Your task to perform on an android device: Turn on the flashlight Image 0: 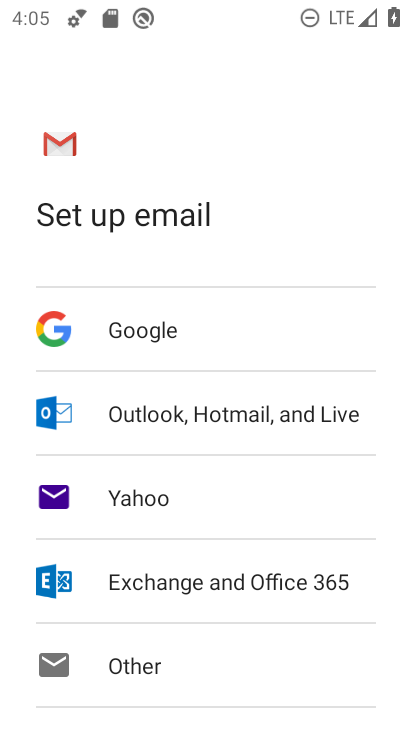
Step 0: press home button
Your task to perform on an android device: Turn on the flashlight Image 1: 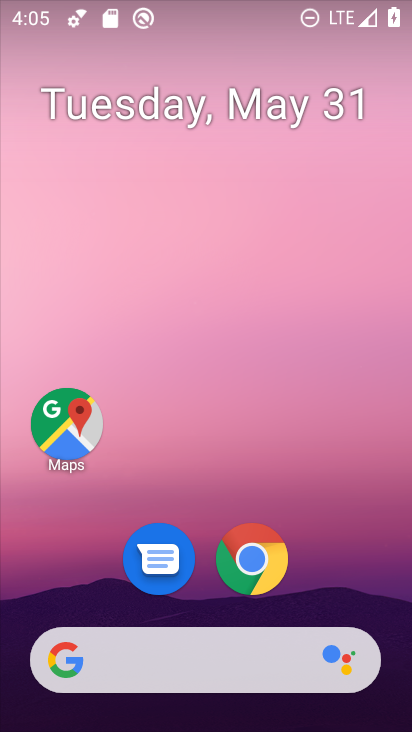
Step 1: drag from (210, 720) to (241, 154)
Your task to perform on an android device: Turn on the flashlight Image 2: 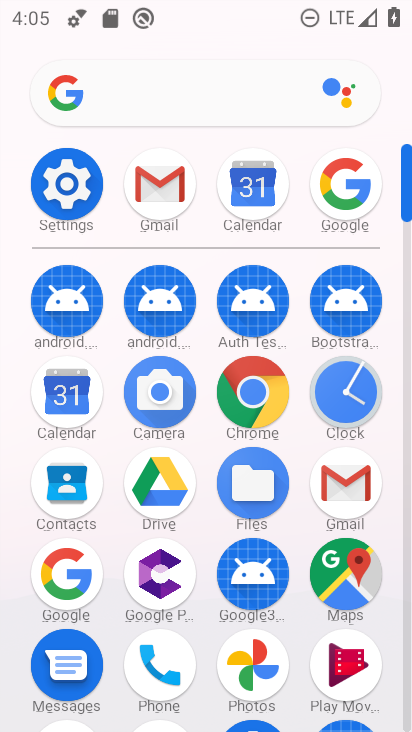
Step 2: click (71, 181)
Your task to perform on an android device: Turn on the flashlight Image 3: 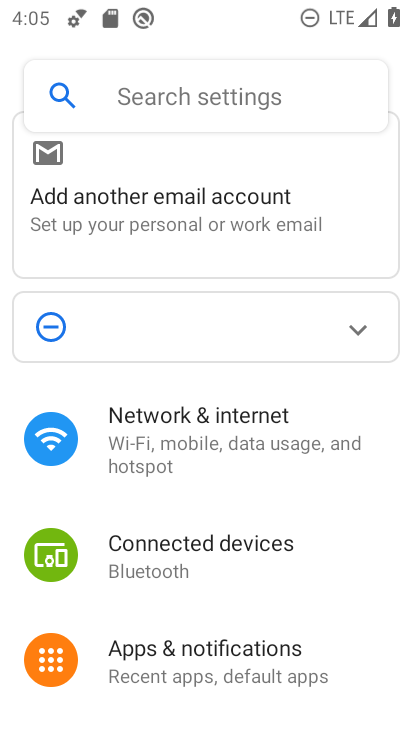
Step 3: drag from (213, 688) to (220, 321)
Your task to perform on an android device: Turn on the flashlight Image 4: 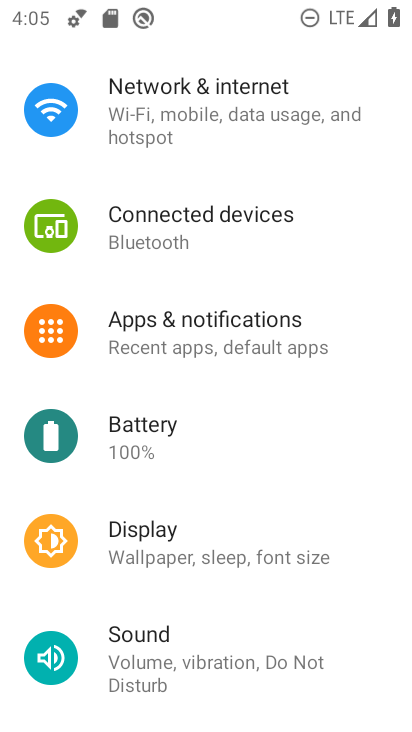
Step 4: drag from (211, 689) to (216, 305)
Your task to perform on an android device: Turn on the flashlight Image 5: 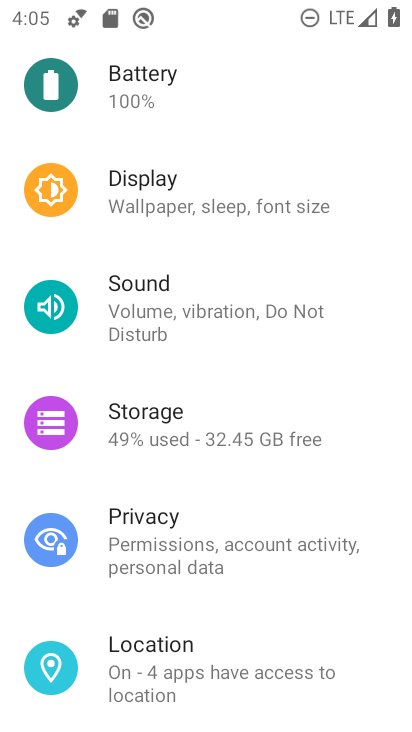
Step 5: drag from (199, 700) to (199, 332)
Your task to perform on an android device: Turn on the flashlight Image 6: 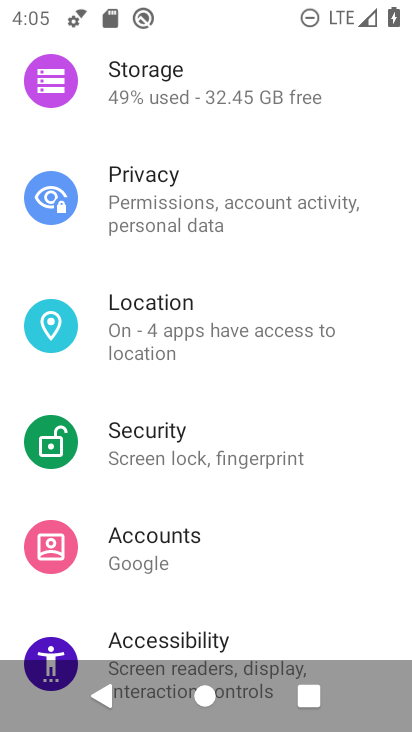
Step 6: drag from (184, 606) to (187, 406)
Your task to perform on an android device: Turn on the flashlight Image 7: 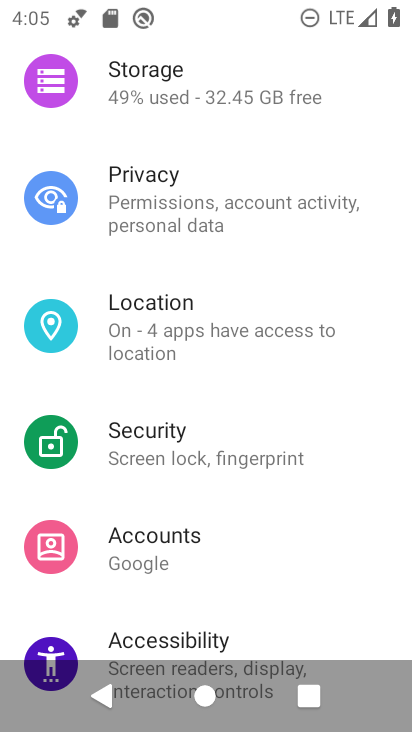
Step 7: click (183, 236)
Your task to perform on an android device: Turn on the flashlight Image 8: 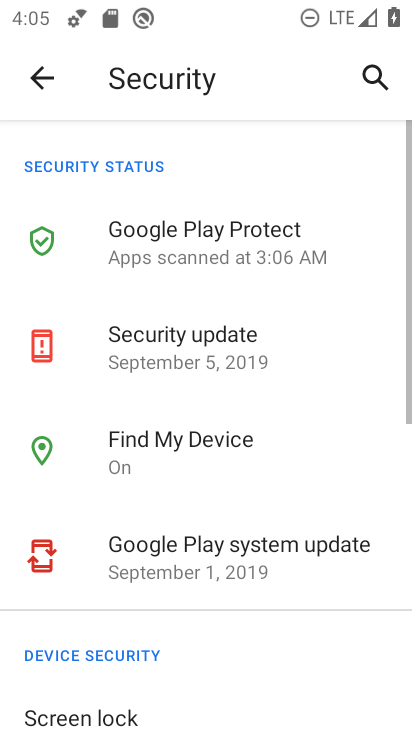
Step 8: drag from (188, 664) to (190, 313)
Your task to perform on an android device: Turn on the flashlight Image 9: 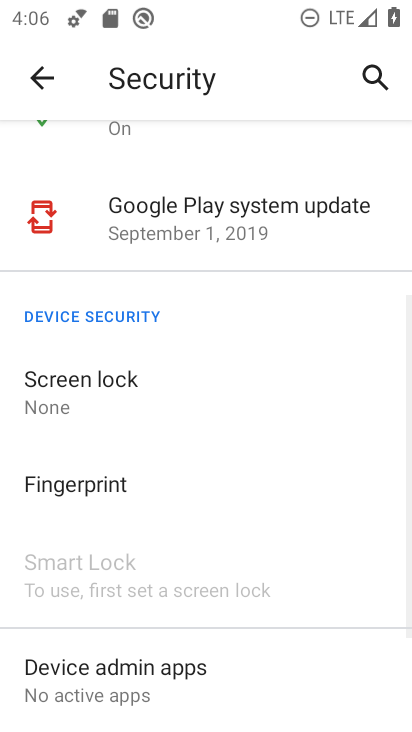
Step 9: click (45, 72)
Your task to perform on an android device: Turn on the flashlight Image 10: 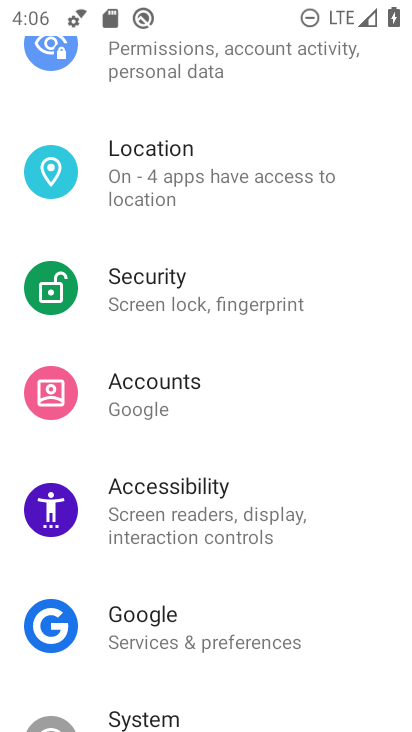
Step 10: task complete